Your task to perform on an android device: Check the weather Image 0: 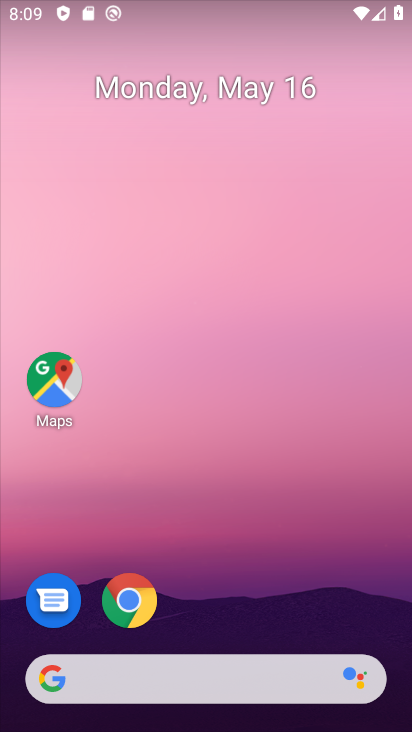
Step 0: drag from (255, 625) to (284, 43)
Your task to perform on an android device: Check the weather Image 1: 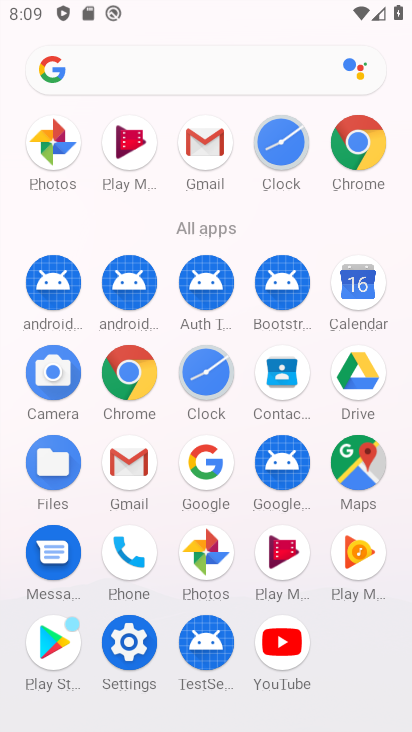
Step 1: click (179, 64)
Your task to perform on an android device: Check the weather Image 2: 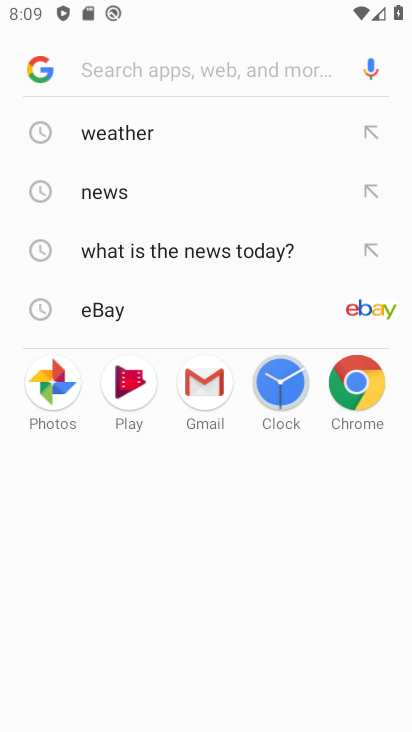
Step 2: type "weather"
Your task to perform on an android device: Check the weather Image 3: 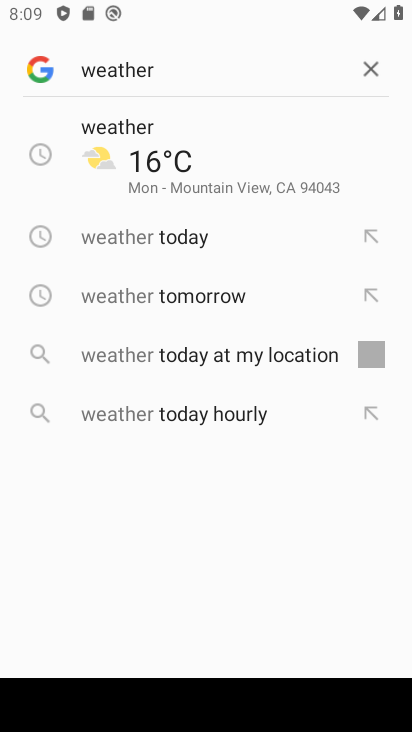
Step 3: click (124, 146)
Your task to perform on an android device: Check the weather Image 4: 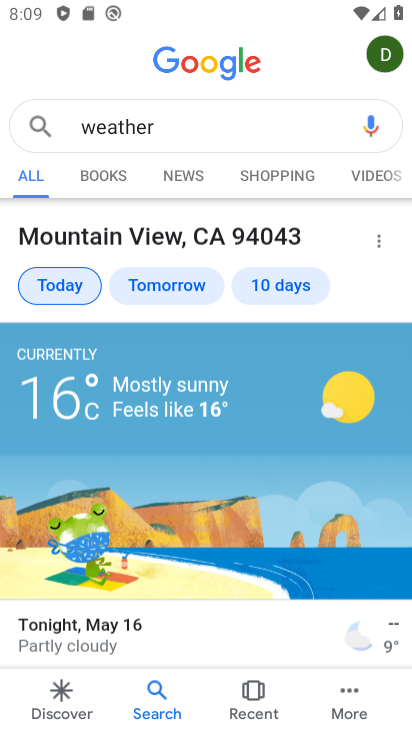
Step 4: task complete